Your task to perform on an android device: Go to calendar. Show me events next week Image 0: 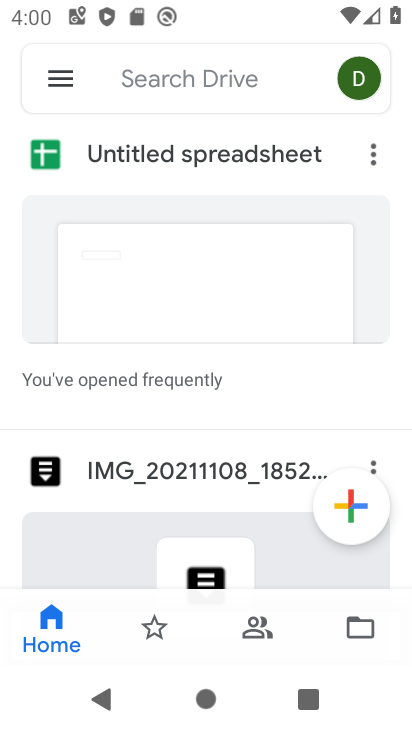
Step 0: press home button
Your task to perform on an android device: Go to calendar. Show me events next week Image 1: 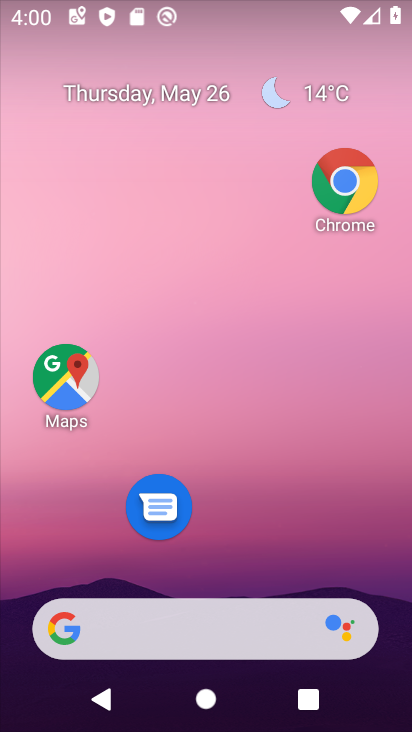
Step 1: drag from (239, 564) to (280, 54)
Your task to perform on an android device: Go to calendar. Show me events next week Image 2: 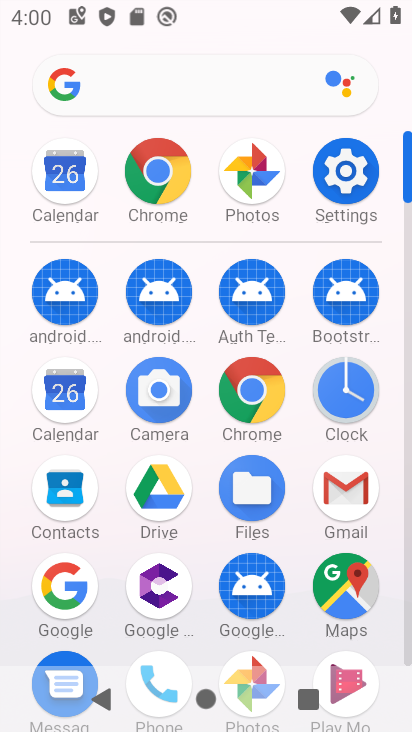
Step 2: click (69, 393)
Your task to perform on an android device: Go to calendar. Show me events next week Image 3: 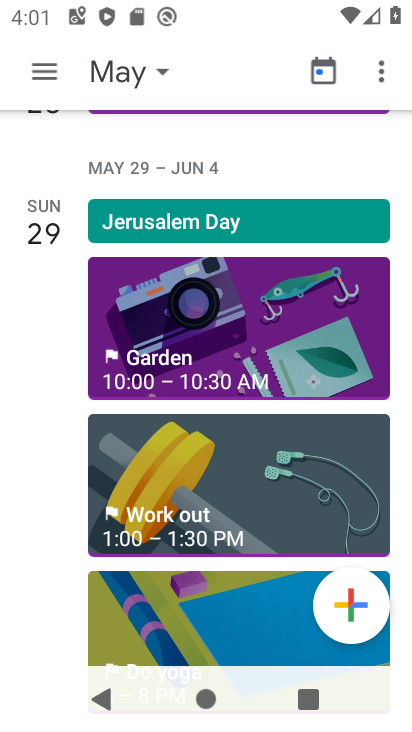
Step 3: click (131, 77)
Your task to perform on an android device: Go to calendar. Show me events next week Image 4: 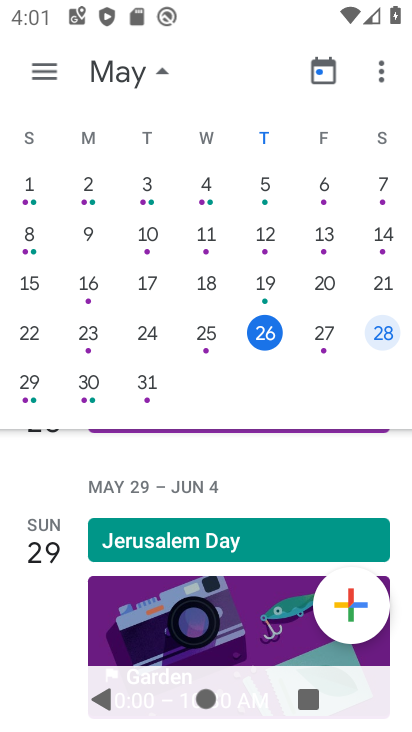
Step 4: drag from (364, 262) to (8, 195)
Your task to perform on an android device: Go to calendar. Show me events next week Image 5: 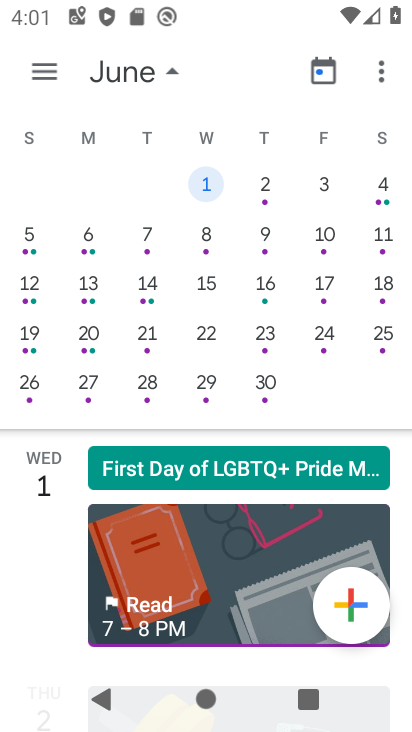
Step 5: click (384, 183)
Your task to perform on an android device: Go to calendar. Show me events next week Image 6: 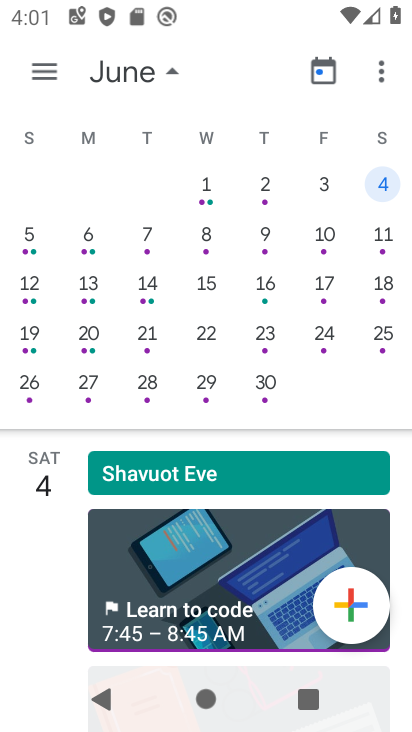
Step 6: task complete